Your task to perform on an android device: manage bookmarks in the chrome app Image 0: 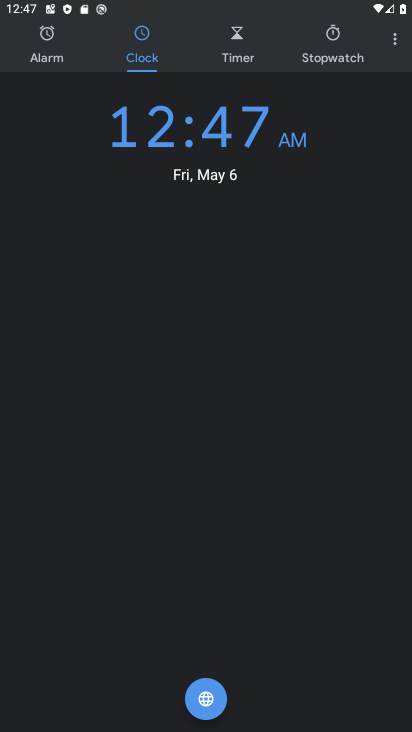
Step 0: press home button
Your task to perform on an android device: manage bookmarks in the chrome app Image 1: 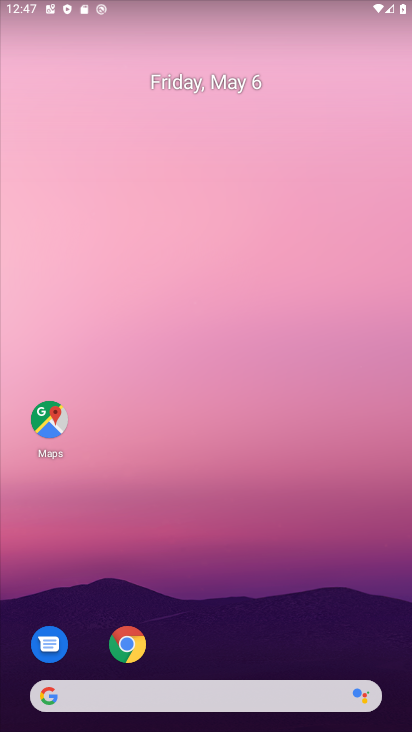
Step 1: drag from (230, 693) to (281, 1)
Your task to perform on an android device: manage bookmarks in the chrome app Image 2: 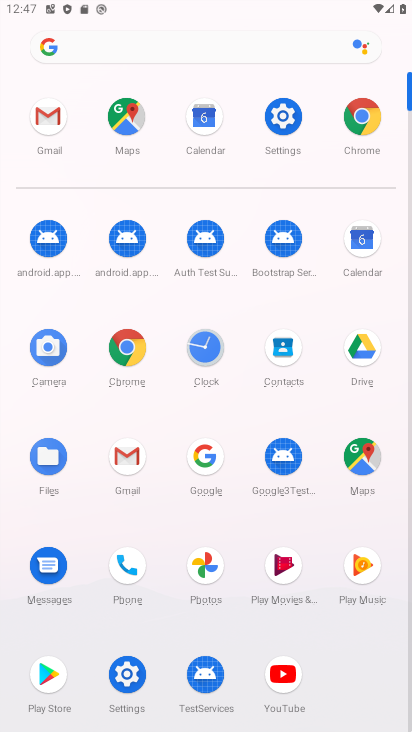
Step 2: click (107, 350)
Your task to perform on an android device: manage bookmarks in the chrome app Image 3: 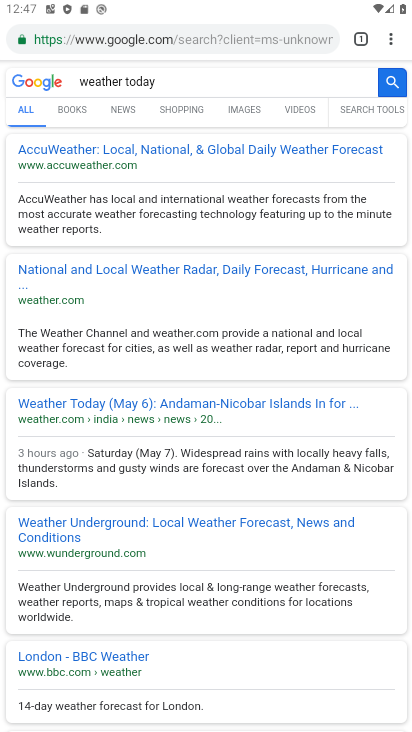
Step 3: click (388, 39)
Your task to perform on an android device: manage bookmarks in the chrome app Image 4: 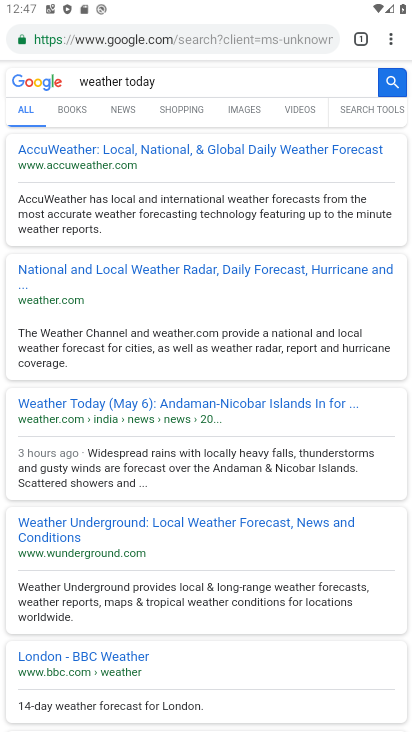
Step 4: task complete